Your task to perform on an android device: Open Google Maps and go to "Timeline" Image 0: 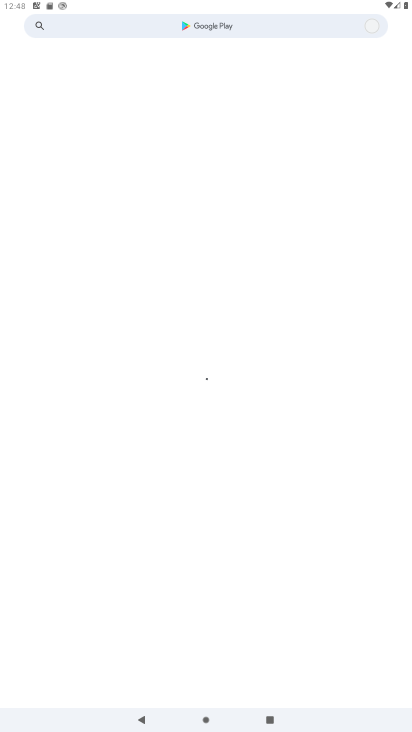
Step 0: press home button
Your task to perform on an android device: Open Google Maps and go to "Timeline" Image 1: 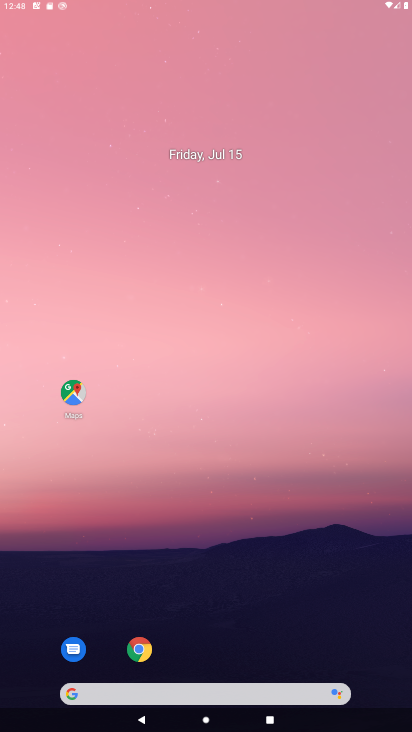
Step 1: drag from (213, 617) to (211, 125)
Your task to perform on an android device: Open Google Maps and go to "Timeline" Image 2: 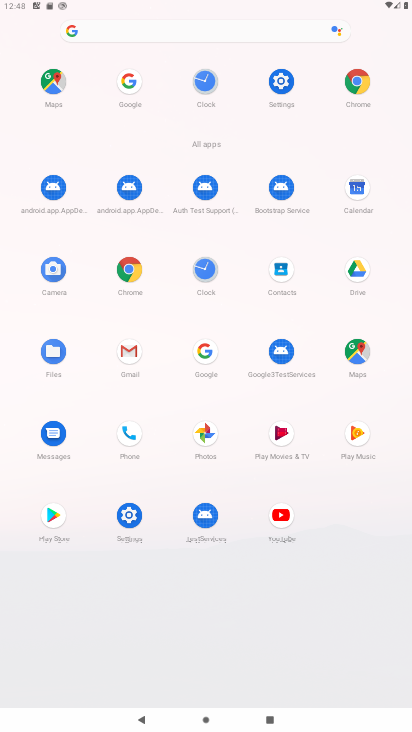
Step 2: click (354, 337)
Your task to perform on an android device: Open Google Maps and go to "Timeline" Image 3: 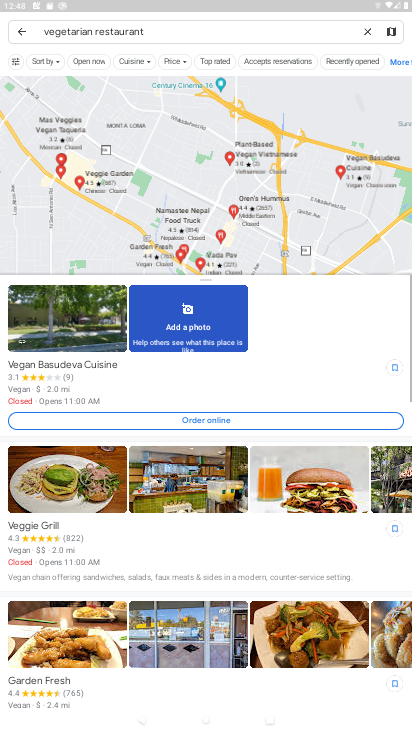
Step 3: click (362, 34)
Your task to perform on an android device: Open Google Maps and go to "Timeline" Image 4: 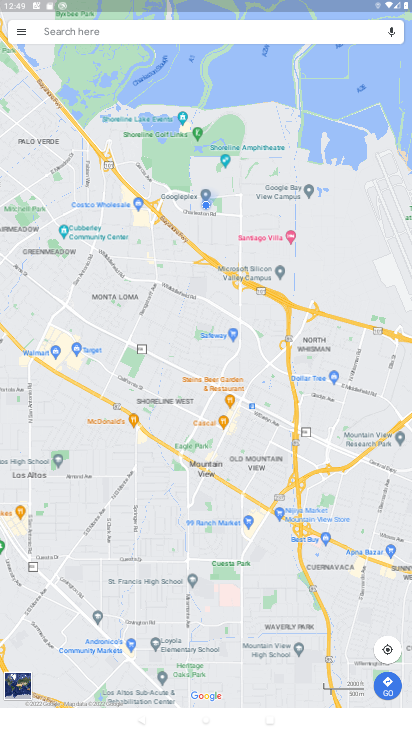
Step 4: click (23, 34)
Your task to perform on an android device: Open Google Maps and go to "Timeline" Image 5: 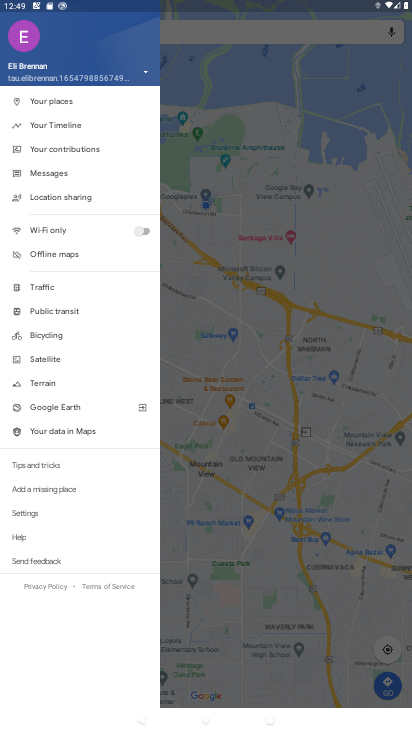
Step 5: click (54, 121)
Your task to perform on an android device: Open Google Maps and go to "Timeline" Image 6: 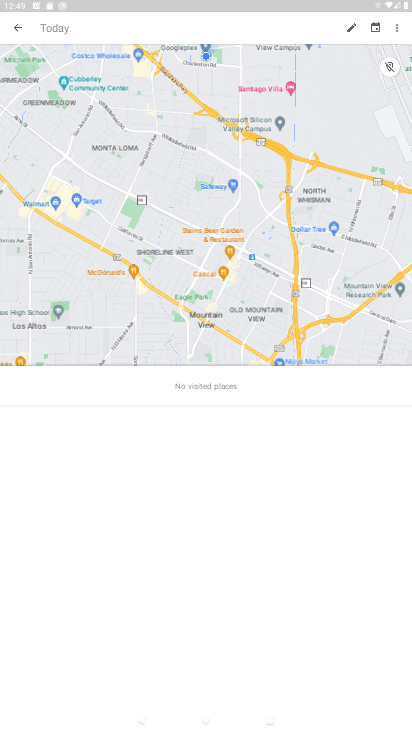
Step 6: task complete